Your task to perform on an android device: check google app version Image 0: 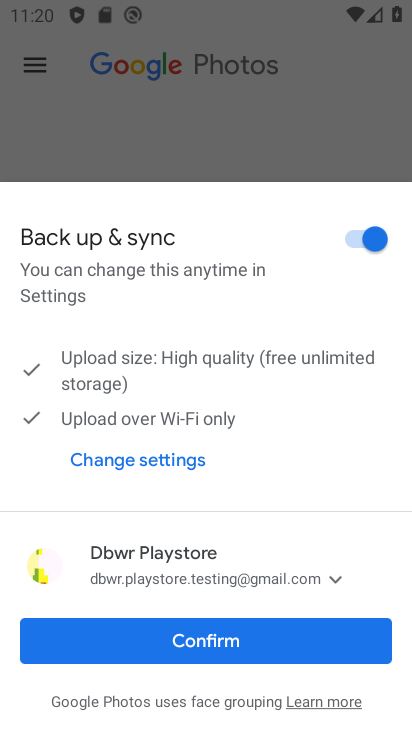
Step 0: click (252, 648)
Your task to perform on an android device: check google app version Image 1: 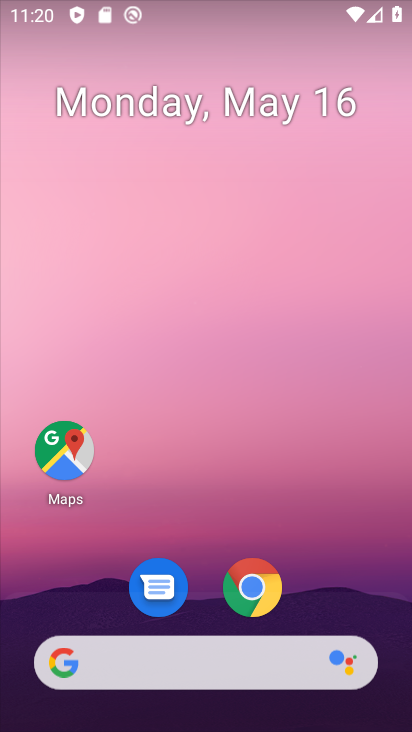
Step 1: click (56, 656)
Your task to perform on an android device: check google app version Image 2: 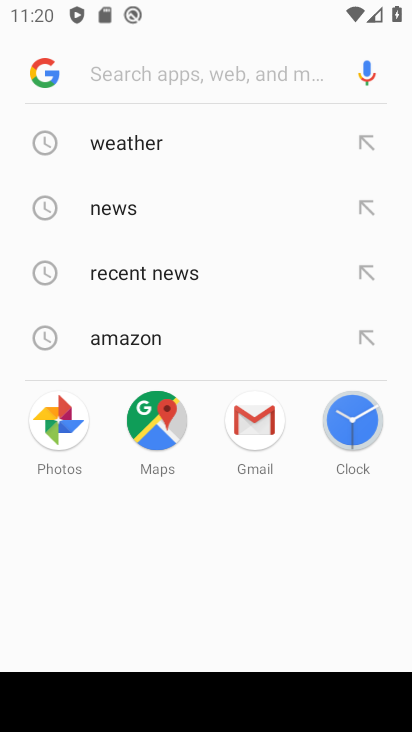
Step 2: click (35, 56)
Your task to perform on an android device: check google app version Image 3: 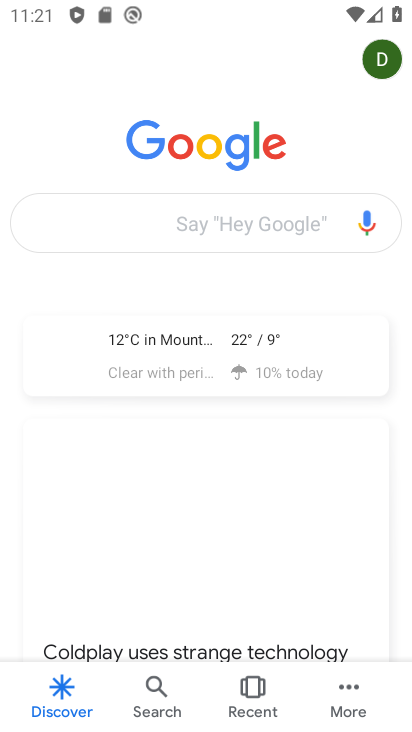
Step 3: click (351, 682)
Your task to perform on an android device: check google app version Image 4: 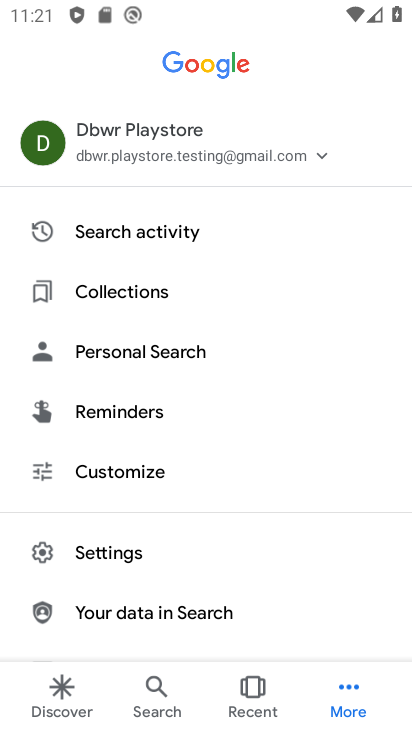
Step 4: click (119, 559)
Your task to perform on an android device: check google app version Image 5: 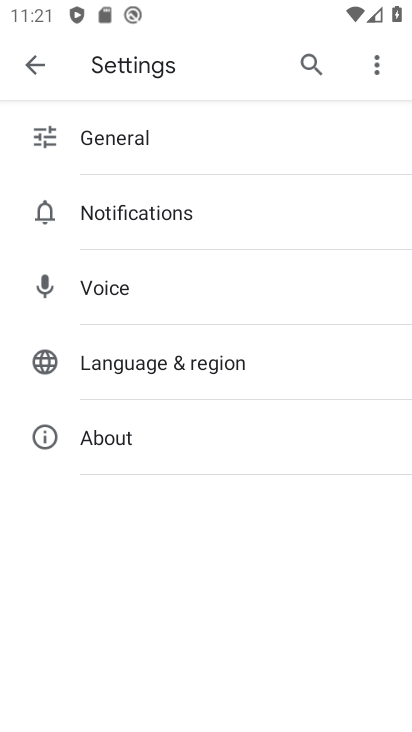
Step 5: click (137, 432)
Your task to perform on an android device: check google app version Image 6: 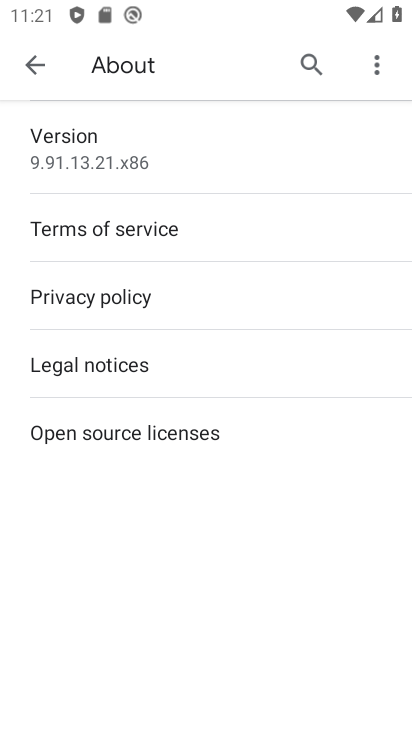
Step 6: task complete